Your task to perform on an android device: change notifications settings Image 0: 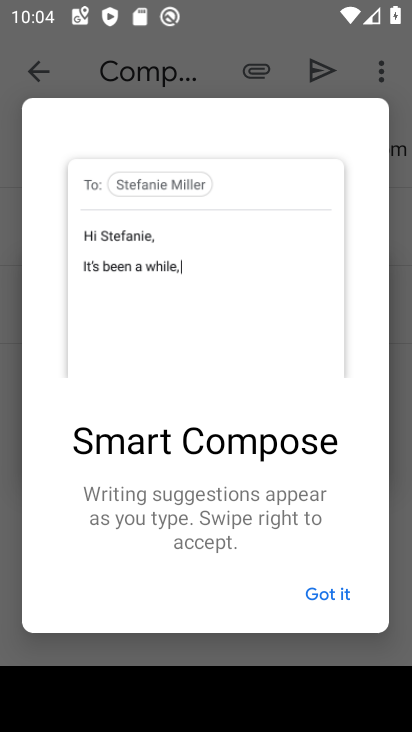
Step 0: press home button
Your task to perform on an android device: change notifications settings Image 1: 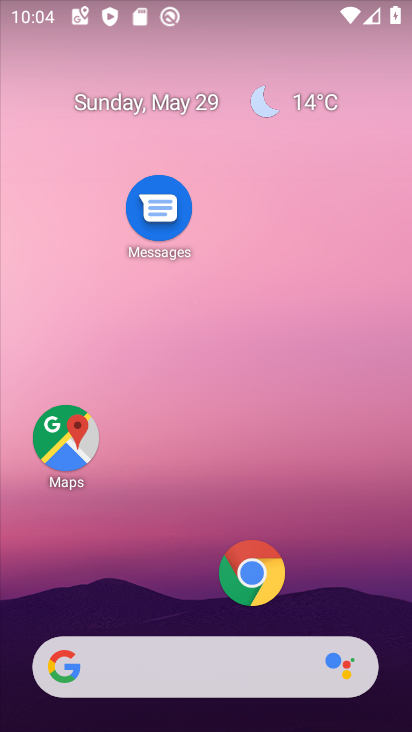
Step 1: drag from (172, 582) to (243, 2)
Your task to perform on an android device: change notifications settings Image 2: 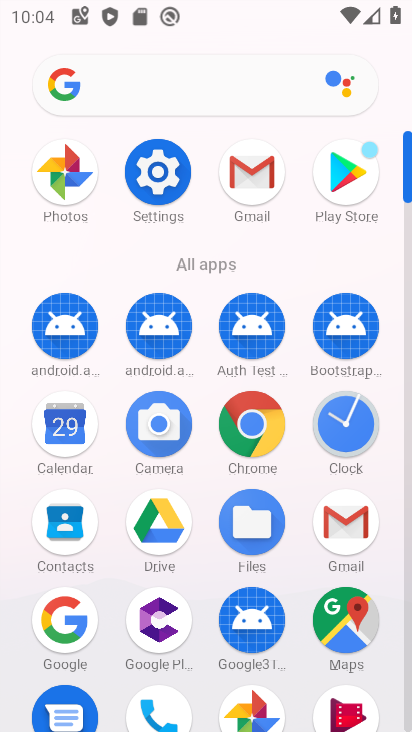
Step 2: click (156, 185)
Your task to perform on an android device: change notifications settings Image 3: 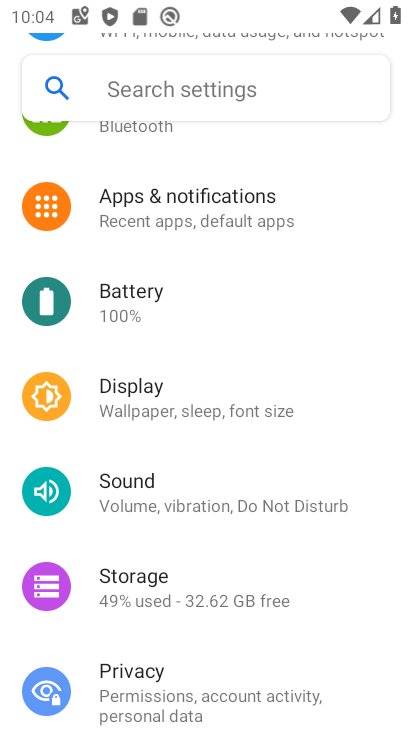
Step 3: click (156, 185)
Your task to perform on an android device: change notifications settings Image 4: 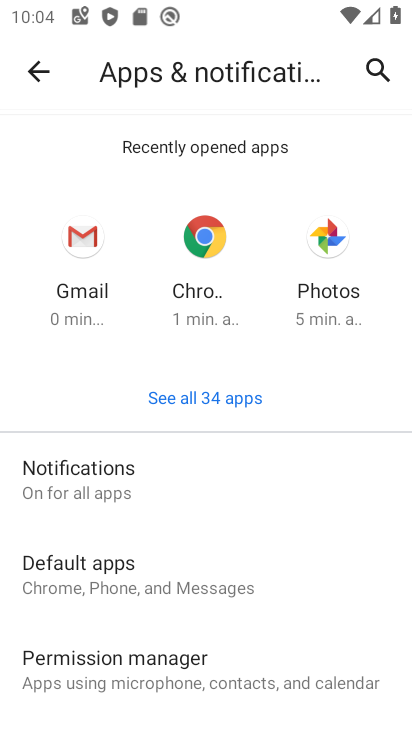
Step 4: task complete